Your task to perform on an android device: Check the news Image 0: 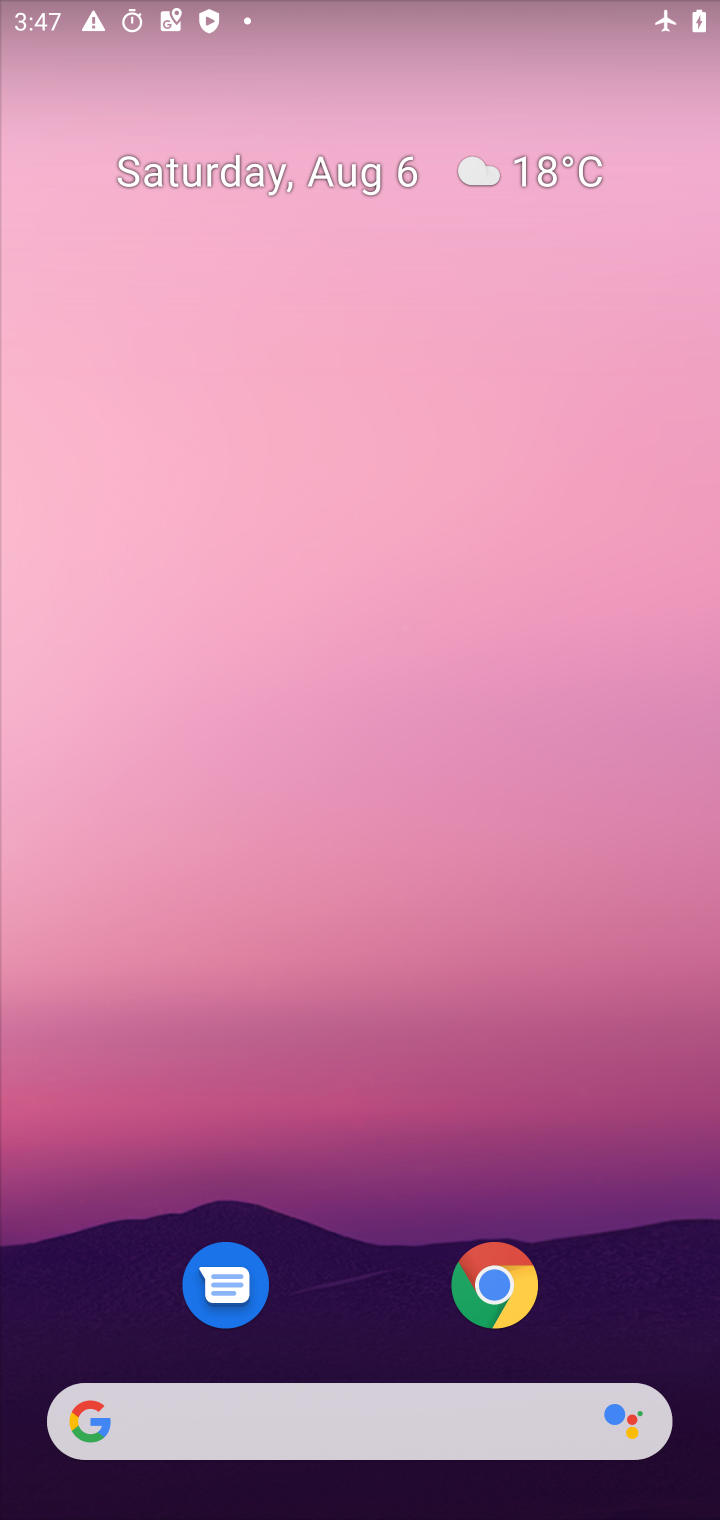
Step 0: drag from (60, 722) to (706, 890)
Your task to perform on an android device: Check the news Image 1: 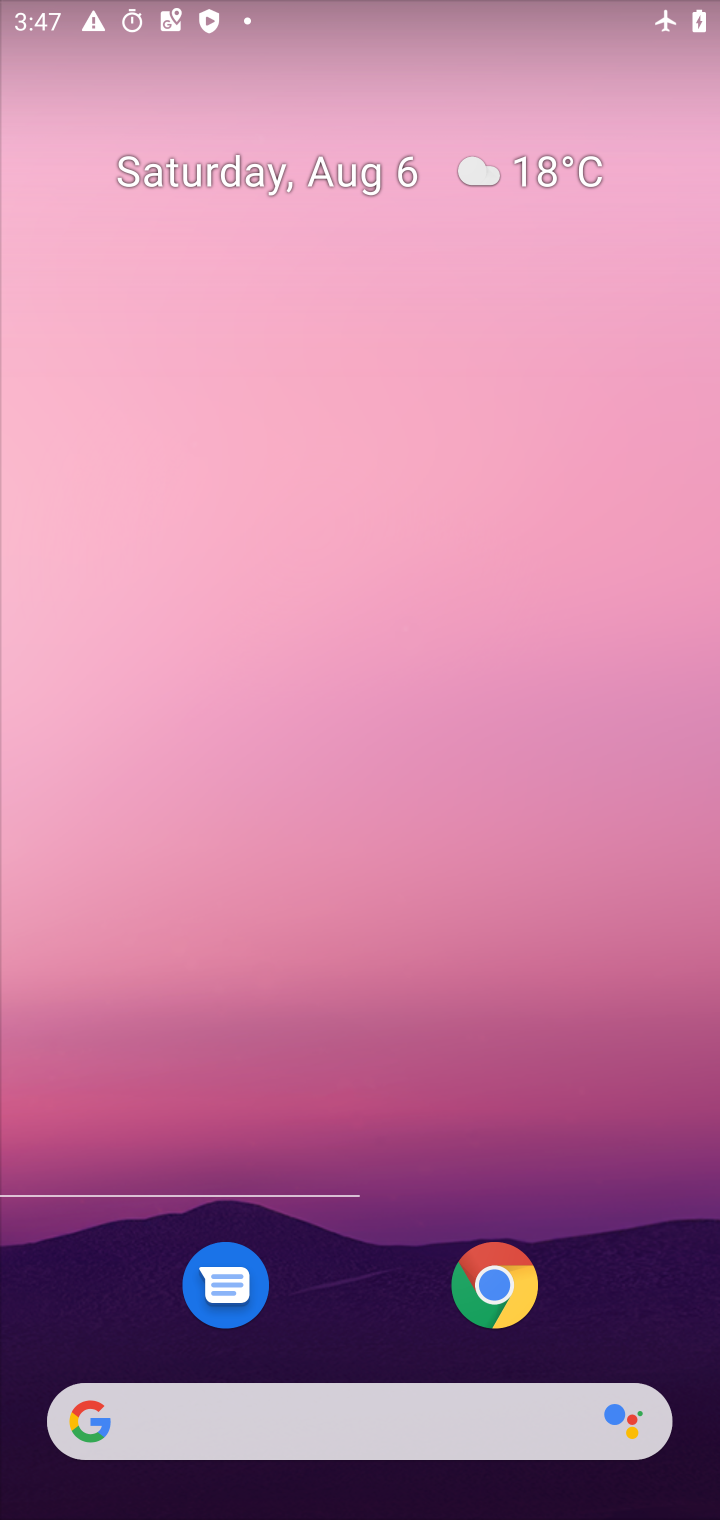
Step 1: task complete